Your task to perform on an android device: Go to accessibility settings Image 0: 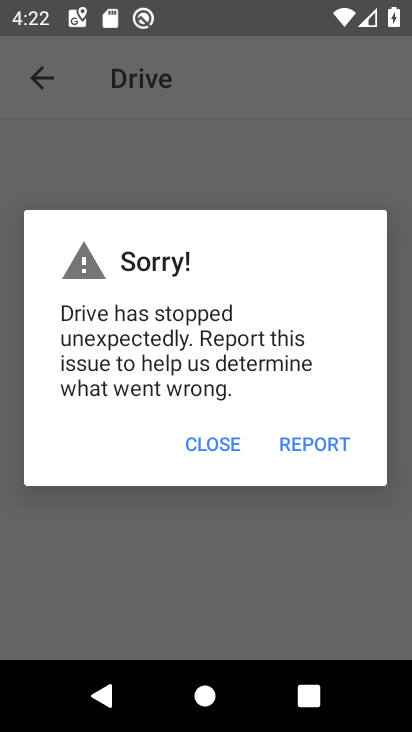
Step 0: click (251, 441)
Your task to perform on an android device: Go to accessibility settings Image 1: 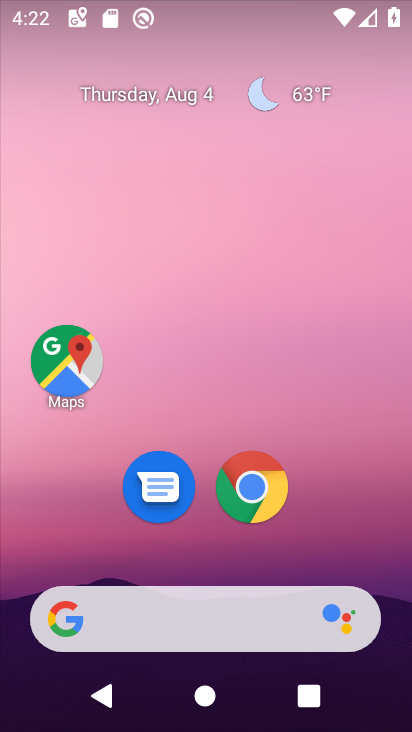
Step 1: drag from (193, 540) to (245, 30)
Your task to perform on an android device: Go to accessibility settings Image 2: 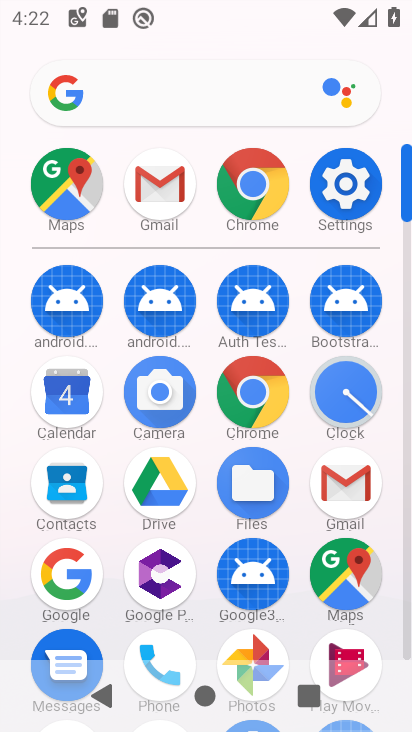
Step 2: click (356, 182)
Your task to perform on an android device: Go to accessibility settings Image 3: 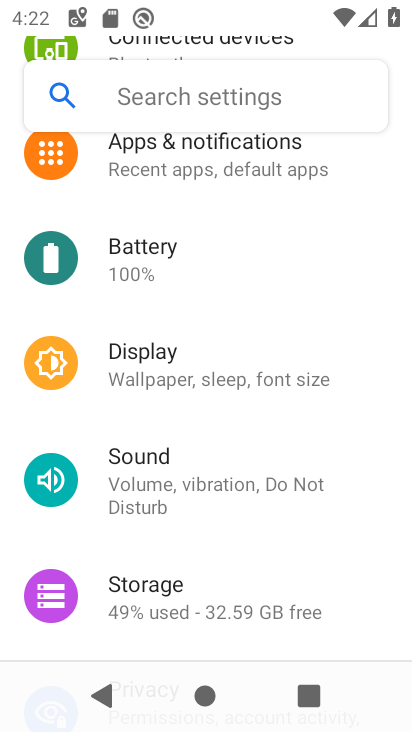
Step 3: drag from (180, 506) to (294, 59)
Your task to perform on an android device: Go to accessibility settings Image 4: 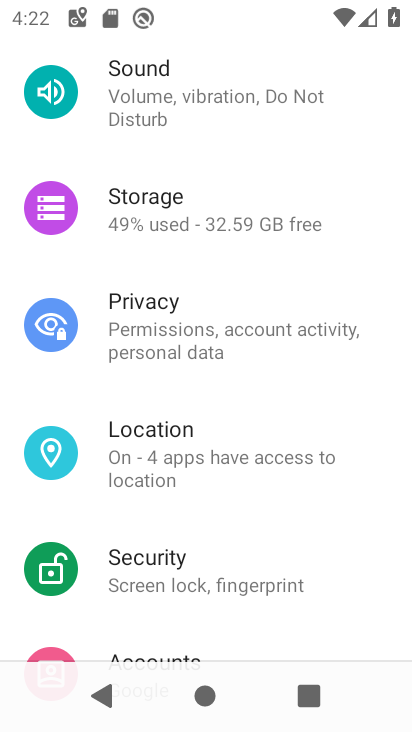
Step 4: drag from (175, 576) to (278, 29)
Your task to perform on an android device: Go to accessibility settings Image 5: 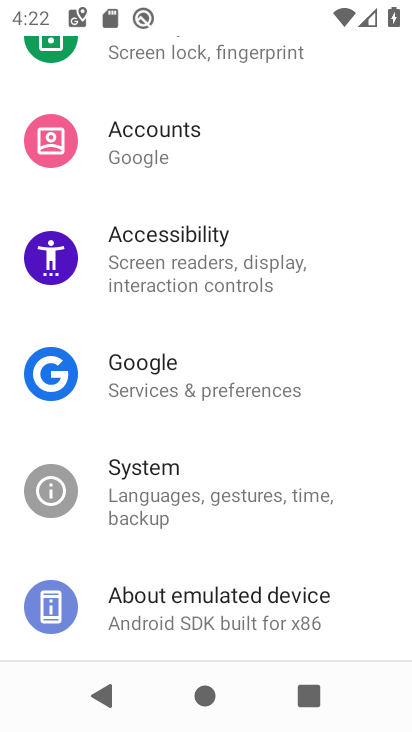
Step 5: click (179, 281)
Your task to perform on an android device: Go to accessibility settings Image 6: 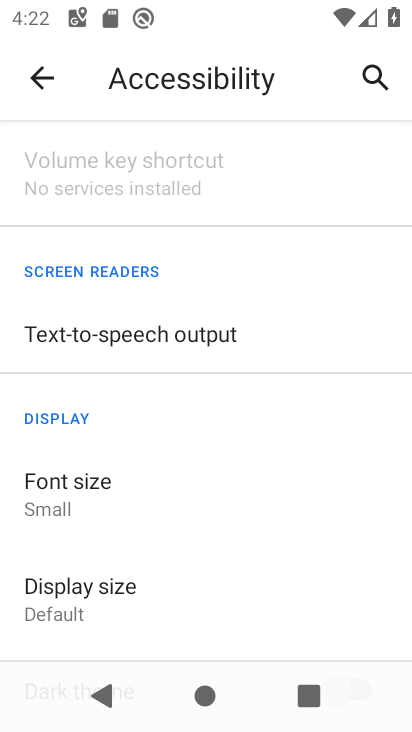
Step 6: task complete